Your task to perform on an android device: Open accessibility settings Image 0: 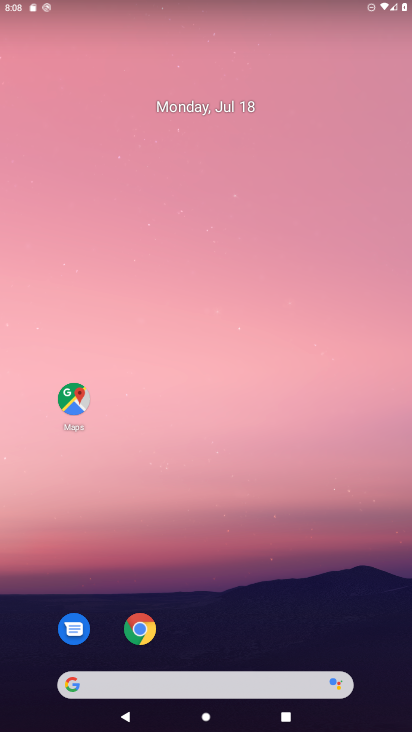
Step 0: drag from (217, 650) to (180, 155)
Your task to perform on an android device: Open accessibility settings Image 1: 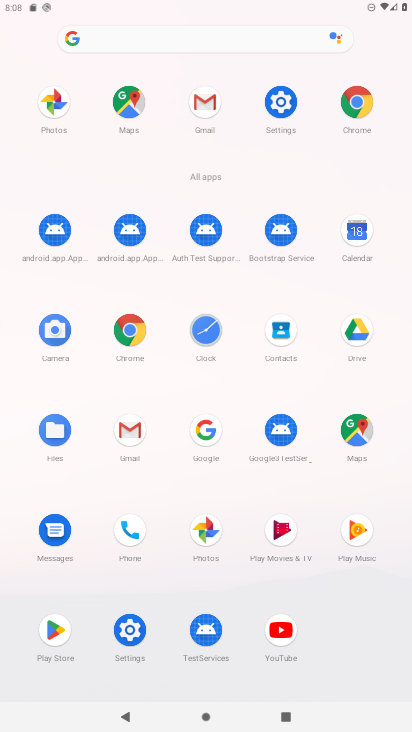
Step 1: click (270, 100)
Your task to perform on an android device: Open accessibility settings Image 2: 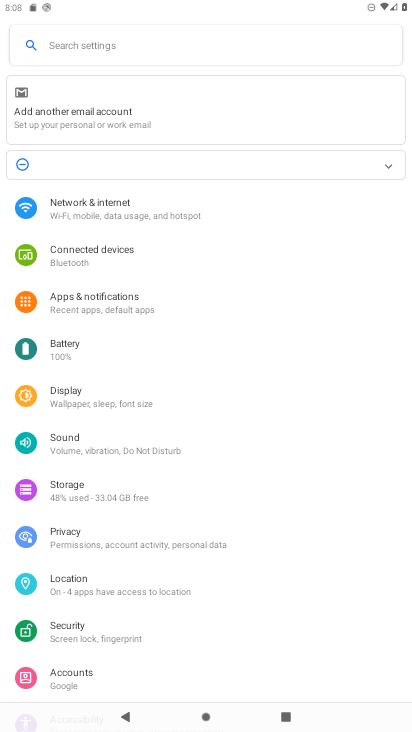
Step 2: drag from (133, 618) to (131, 214)
Your task to perform on an android device: Open accessibility settings Image 3: 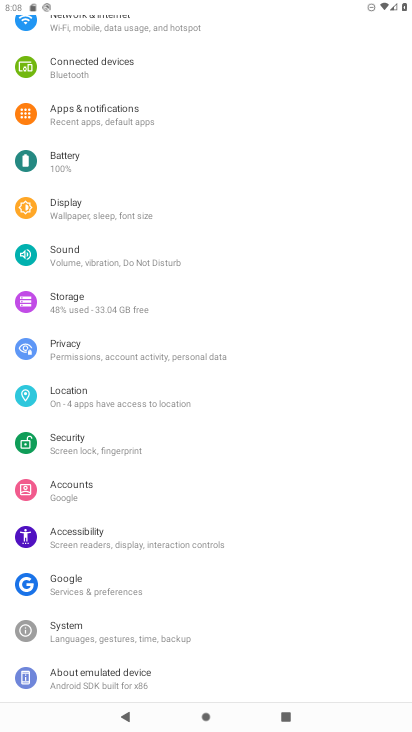
Step 3: click (97, 531)
Your task to perform on an android device: Open accessibility settings Image 4: 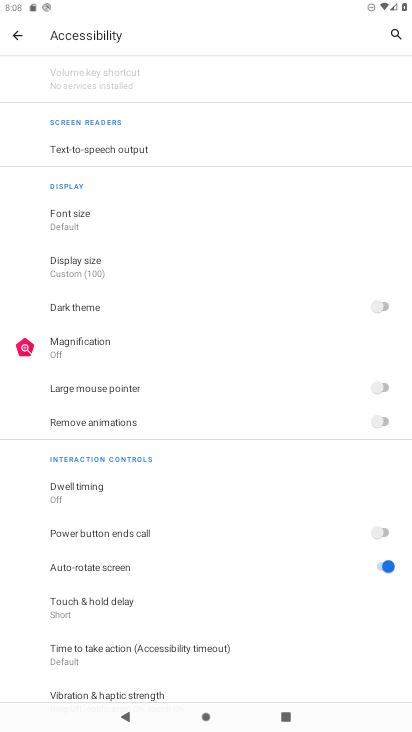
Step 4: task complete